Your task to perform on an android device: Open accessibility settings Image 0: 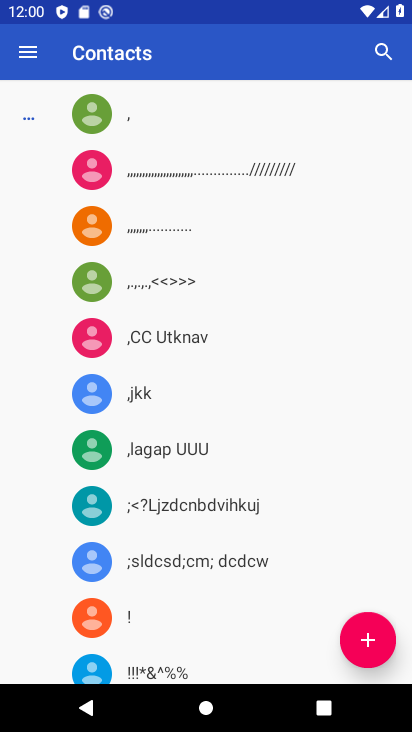
Step 0: press home button
Your task to perform on an android device: Open accessibility settings Image 1: 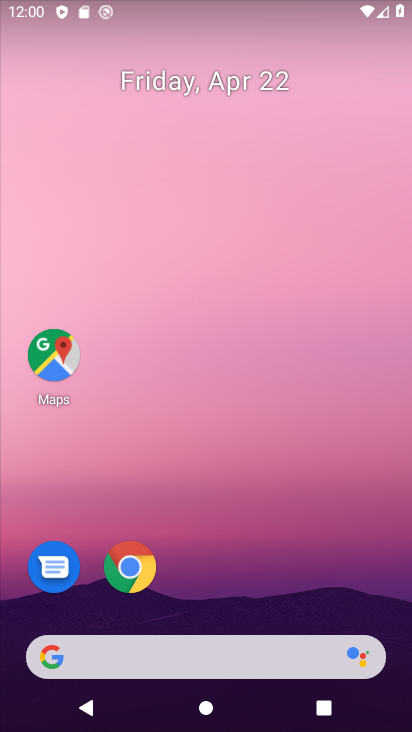
Step 1: drag from (213, 587) to (280, 152)
Your task to perform on an android device: Open accessibility settings Image 2: 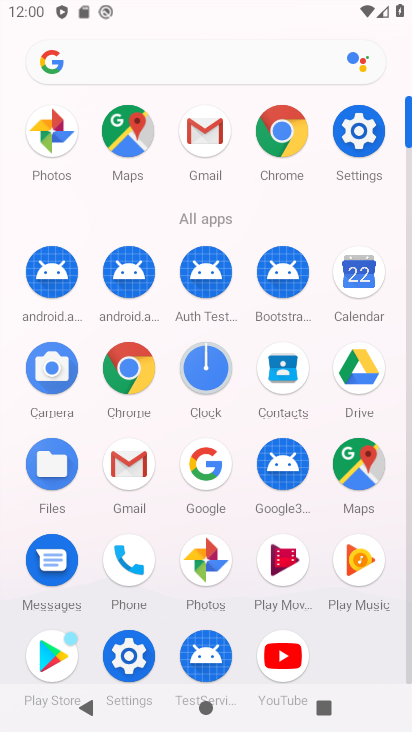
Step 2: click (370, 159)
Your task to perform on an android device: Open accessibility settings Image 3: 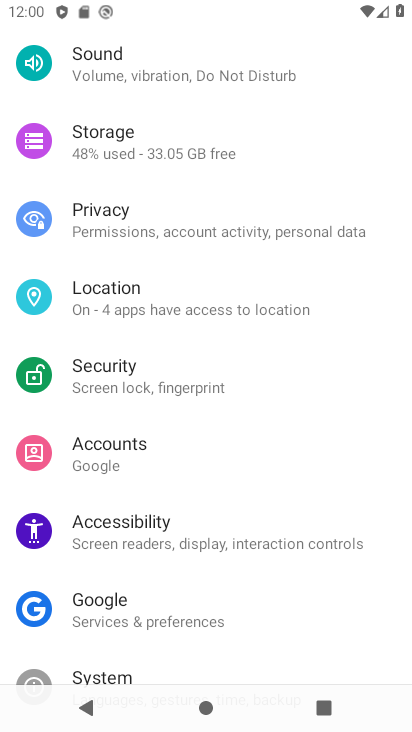
Step 3: click (181, 529)
Your task to perform on an android device: Open accessibility settings Image 4: 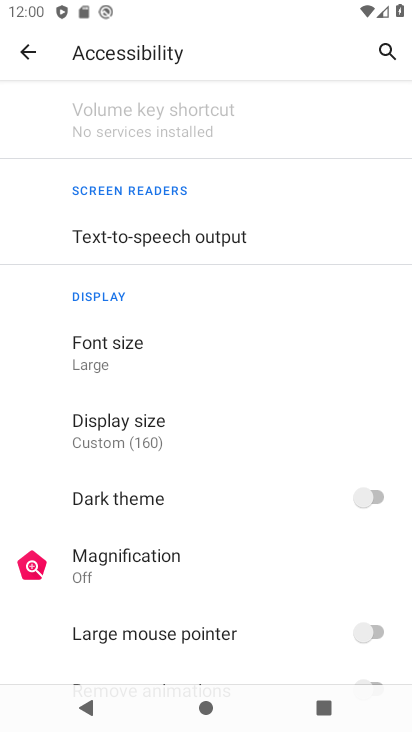
Step 4: task complete